Your task to perform on an android device: Open the map Image 0: 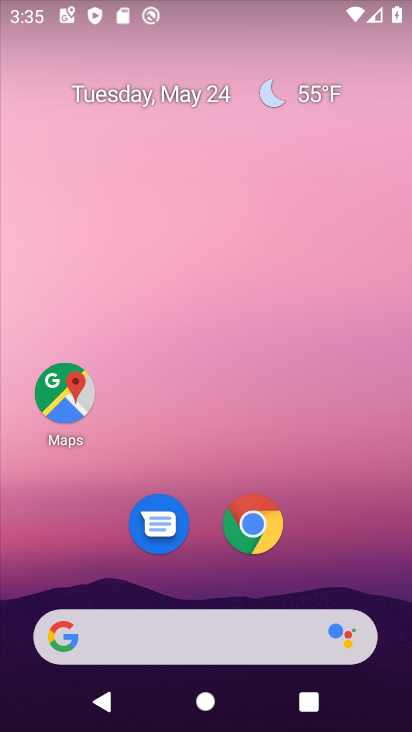
Step 0: click (50, 388)
Your task to perform on an android device: Open the map Image 1: 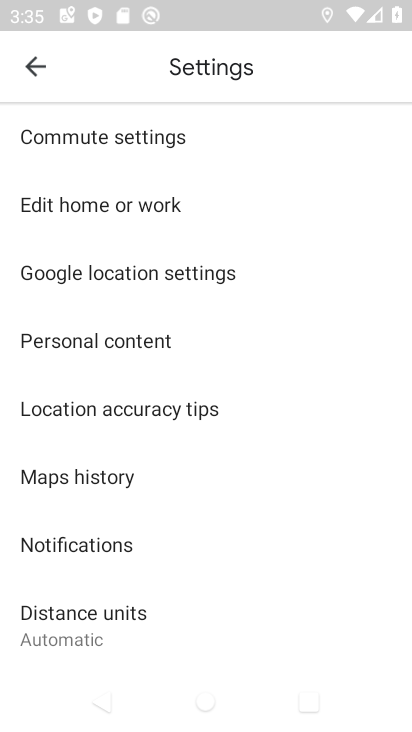
Step 1: click (39, 57)
Your task to perform on an android device: Open the map Image 2: 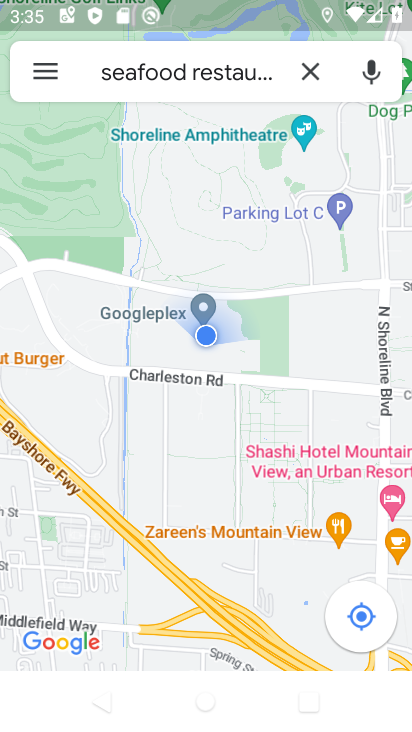
Step 2: click (308, 64)
Your task to perform on an android device: Open the map Image 3: 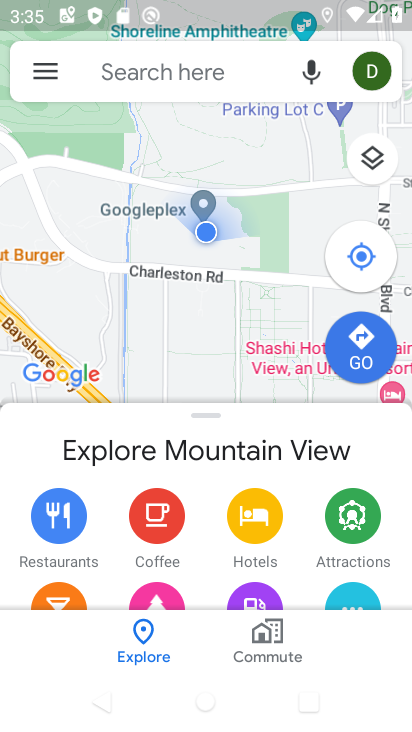
Step 3: task complete